Your task to perform on an android device: What's on my calendar tomorrow? Image 0: 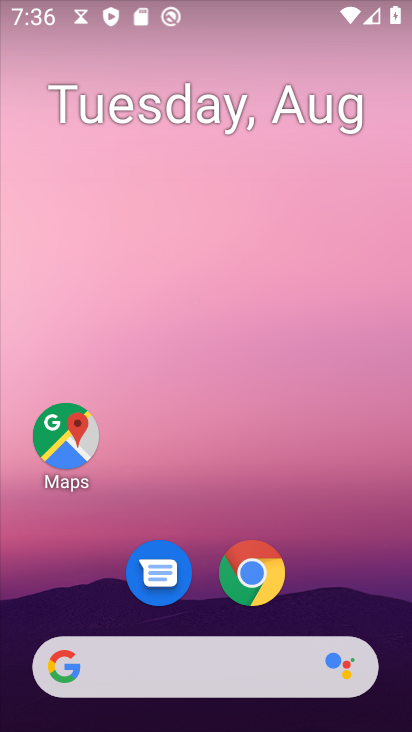
Step 0: press home button
Your task to perform on an android device: What's on my calendar tomorrow? Image 1: 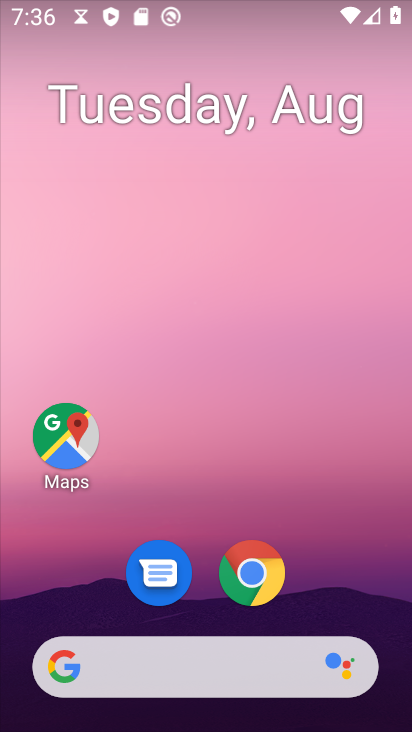
Step 1: drag from (209, 611) to (231, 2)
Your task to perform on an android device: What's on my calendar tomorrow? Image 2: 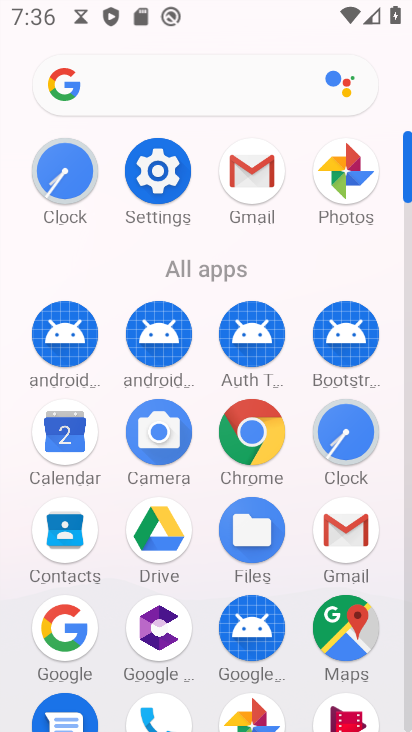
Step 2: click (61, 428)
Your task to perform on an android device: What's on my calendar tomorrow? Image 3: 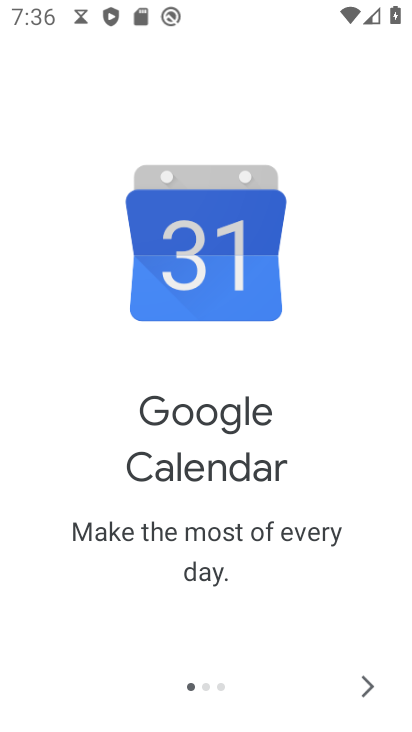
Step 3: click (357, 679)
Your task to perform on an android device: What's on my calendar tomorrow? Image 4: 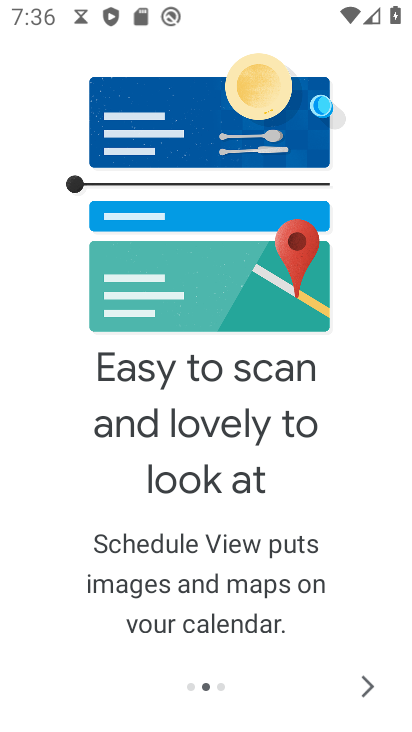
Step 4: click (357, 679)
Your task to perform on an android device: What's on my calendar tomorrow? Image 5: 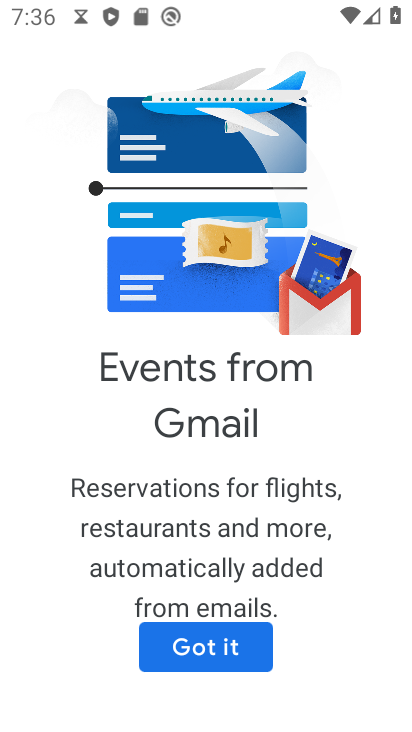
Step 5: click (211, 645)
Your task to perform on an android device: What's on my calendar tomorrow? Image 6: 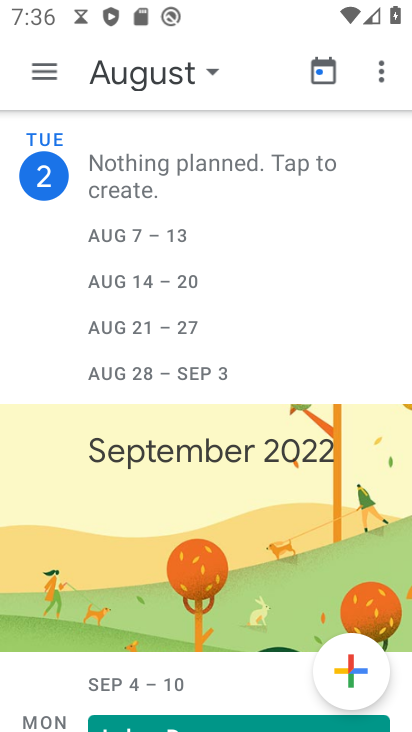
Step 6: click (58, 68)
Your task to perform on an android device: What's on my calendar tomorrow? Image 7: 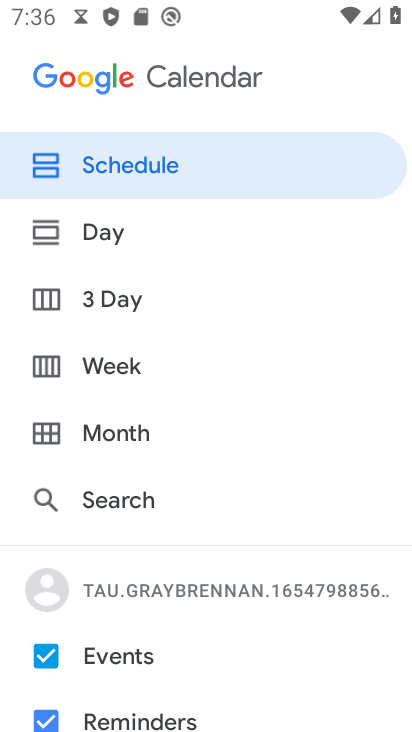
Step 7: click (137, 225)
Your task to perform on an android device: What's on my calendar tomorrow? Image 8: 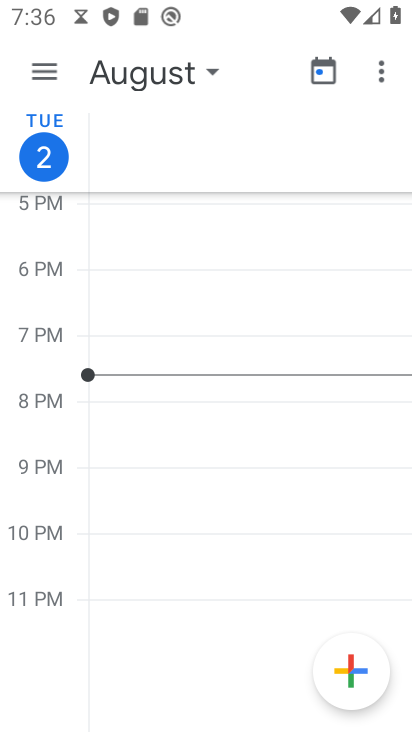
Step 8: click (49, 68)
Your task to perform on an android device: What's on my calendar tomorrow? Image 9: 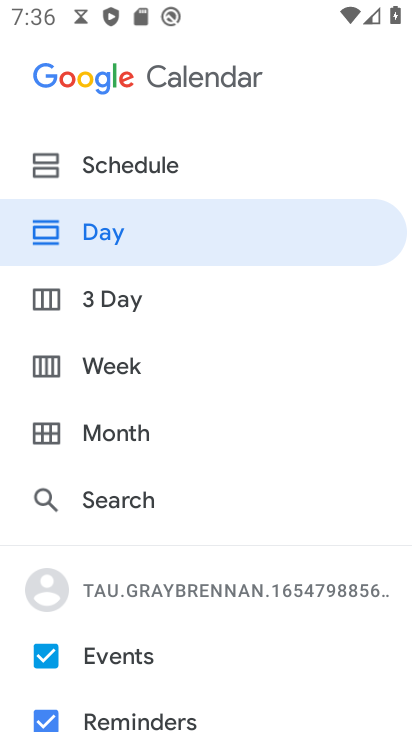
Step 9: click (128, 231)
Your task to perform on an android device: What's on my calendar tomorrow? Image 10: 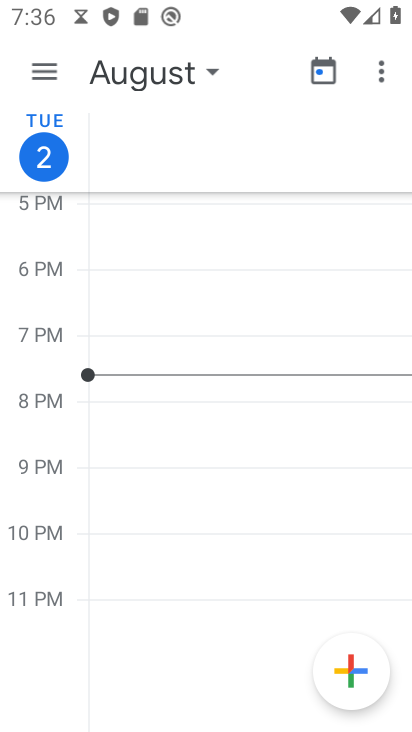
Step 10: click (208, 69)
Your task to perform on an android device: What's on my calendar tomorrow? Image 11: 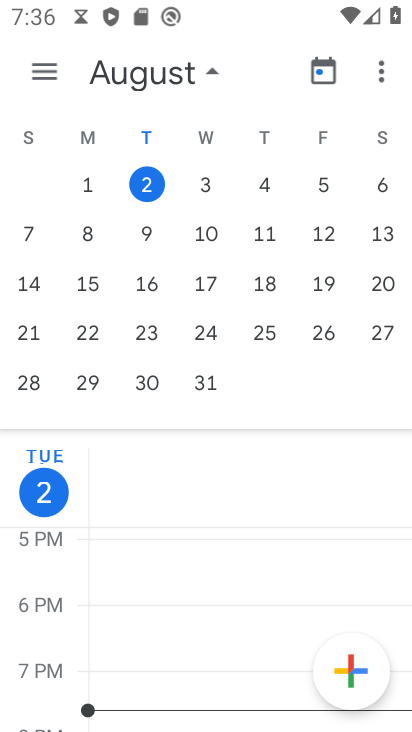
Step 11: click (203, 182)
Your task to perform on an android device: What's on my calendar tomorrow? Image 12: 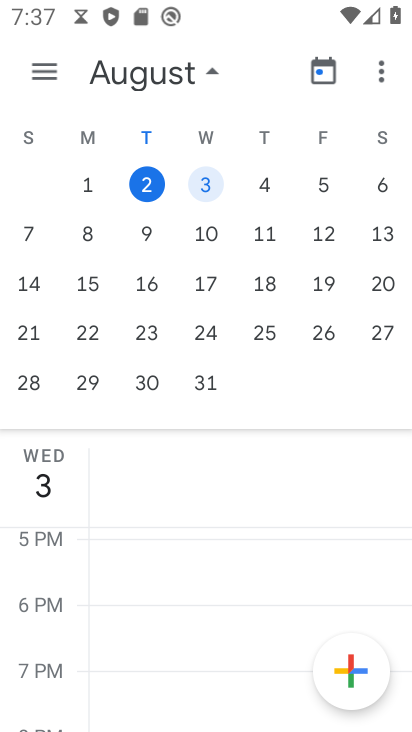
Step 12: click (208, 65)
Your task to perform on an android device: What's on my calendar tomorrow? Image 13: 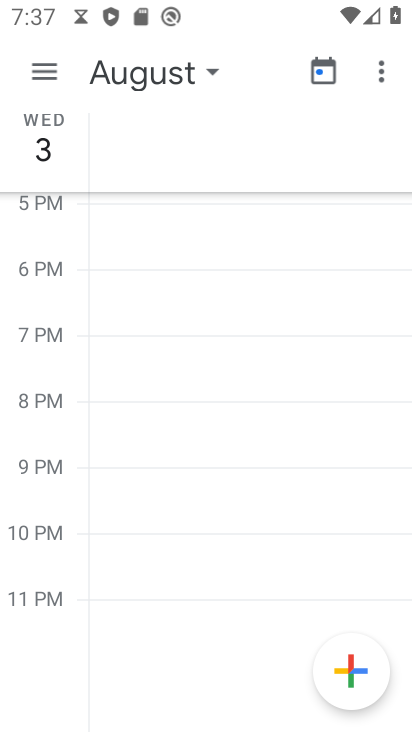
Step 13: task complete